Your task to perform on an android device: turn off notifications settings in the gmail app Image 0: 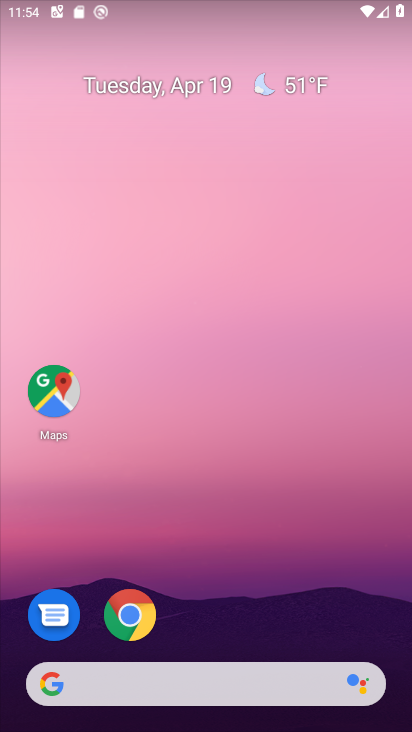
Step 0: drag from (223, 660) to (209, 229)
Your task to perform on an android device: turn off notifications settings in the gmail app Image 1: 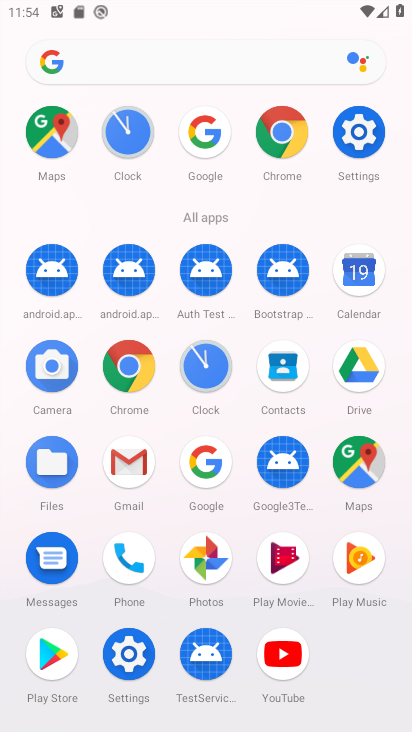
Step 1: click (127, 473)
Your task to perform on an android device: turn off notifications settings in the gmail app Image 2: 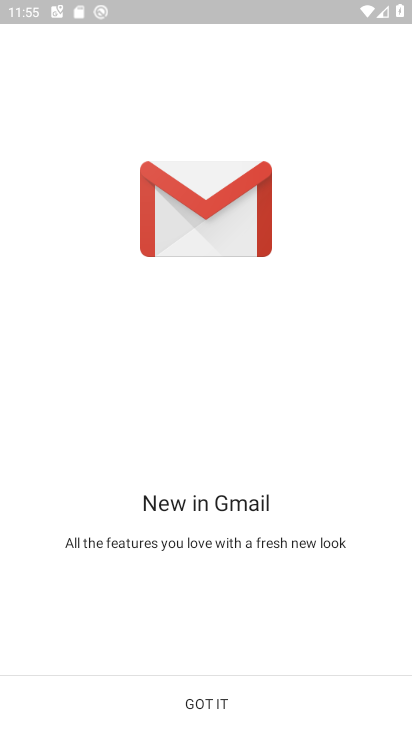
Step 2: click (175, 700)
Your task to perform on an android device: turn off notifications settings in the gmail app Image 3: 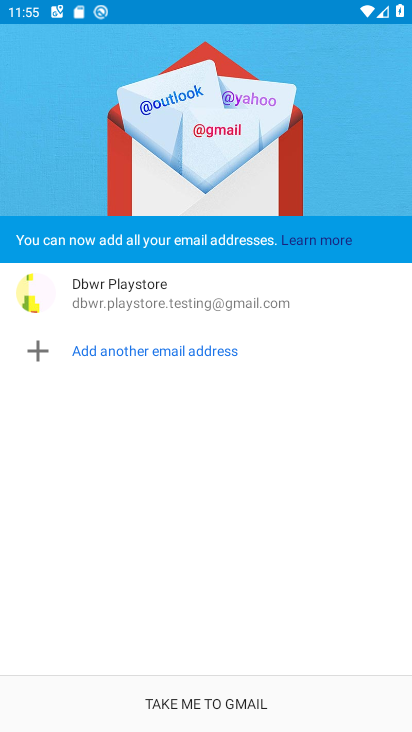
Step 3: click (180, 706)
Your task to perform on an android device: turn off notifications settings in the gmail app Image 4: 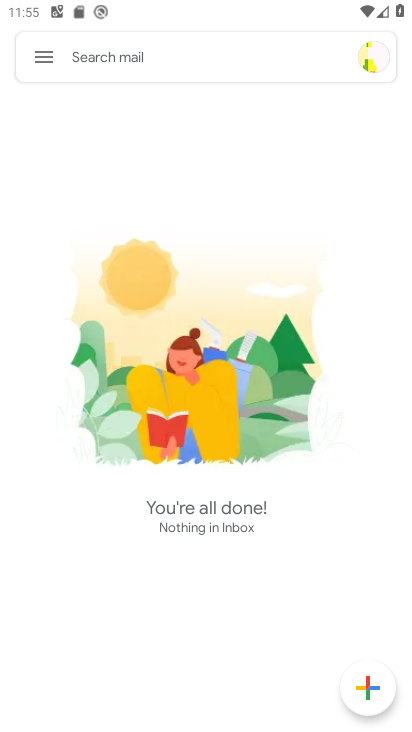
Step 4: click (43, 58)
Your task to perform on an android device: turn off notifications settings in the gmail app Image 5: 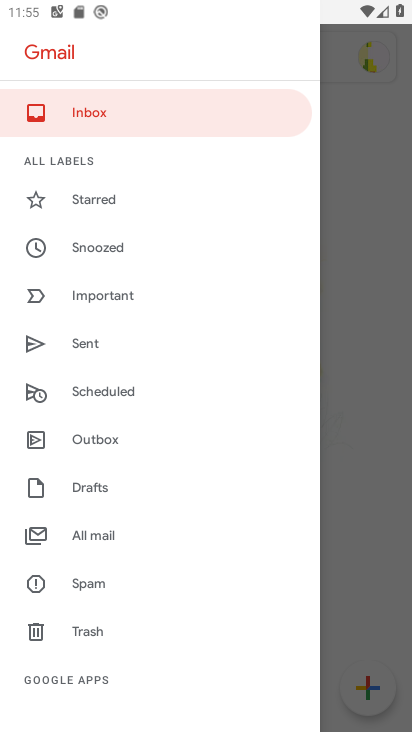
Step 5: drag from (142, 592) to (142, 235)
Your task to perform on an android device: turn off notifications settings in the gmail app Image 6: 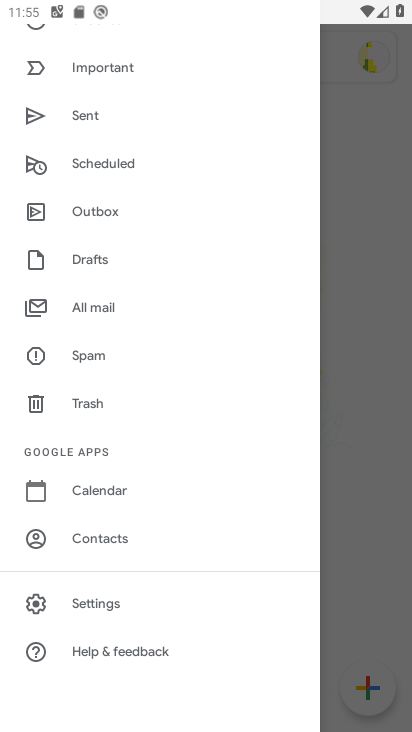
Step 6: click (104, 608)
Your task to perform on an android device: turn off notifications settings in the gmail app Image 7: 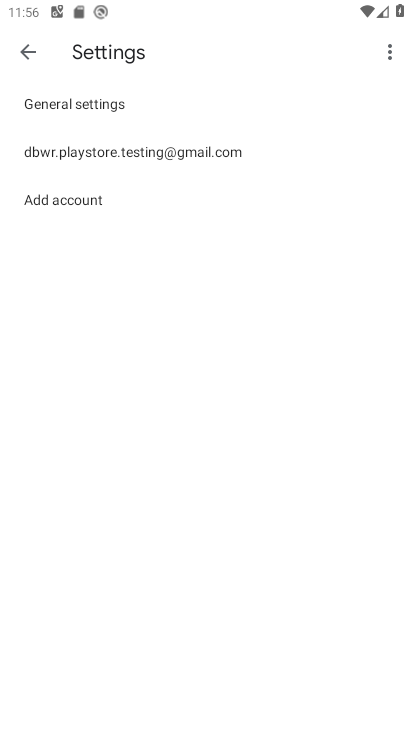
Step 7: click (158, 145)
Your task to perform on an android device: turn off notifications settings in the gmail app Image 8: 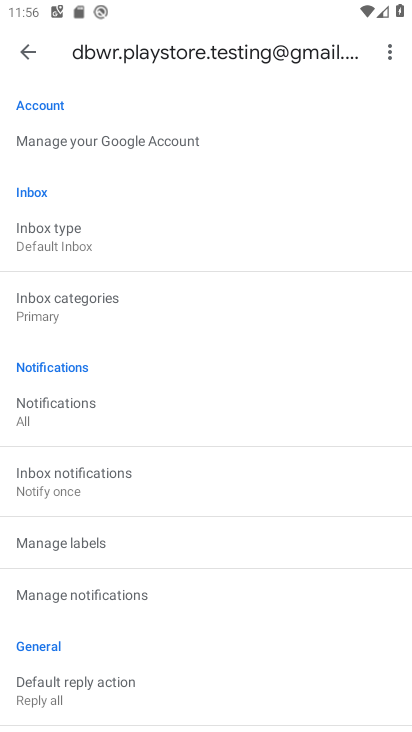
Step 8: drag from (120, 535) to (175, 151)
Your task to perform on an android device: turn off notifications settings in the gmail app Image 9: 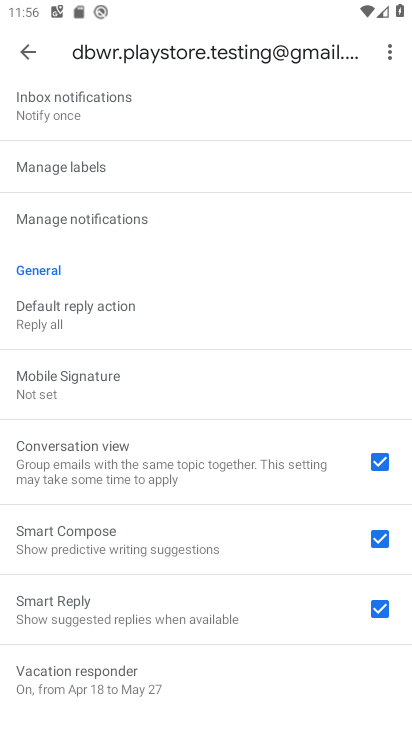
Step 9: drag from (161, 656) to (192, 275)
Your task to perform on an android device: turn off notifications settings in the gmail app Image 10: 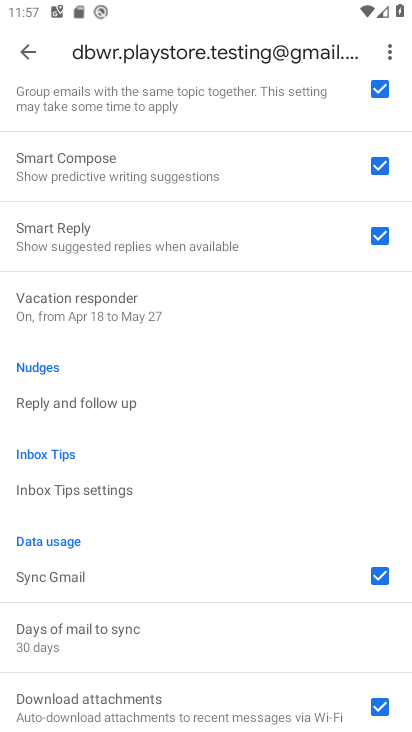
Step 10: drag from (224, 580) to (280, 109)
Your task to perform on an android device: turn off notifications settings in the gmail app Image 11: 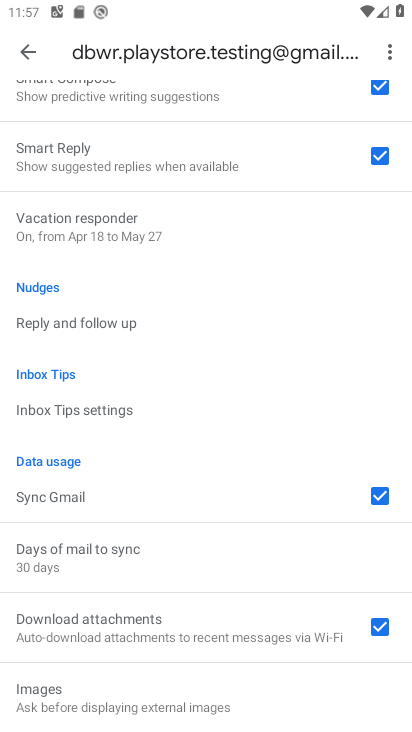
Step 11: drag from (176, 224) to (133, 590)
Your task to perform on an android device: turn off notifications settings in the gmail app Image 12: 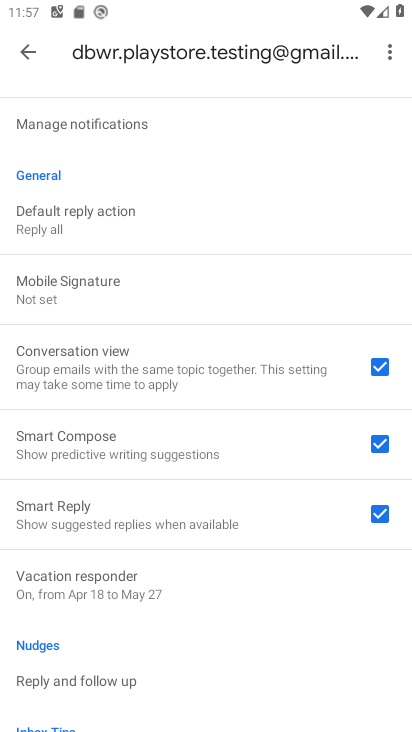
Step 12: click (93, 122)
Your task to perform on an android device: turn off notifications settings in the gmail app Image 13: 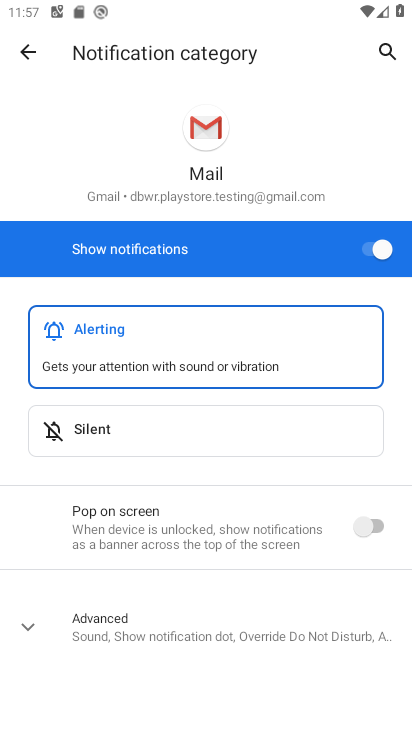
Step 13: click (383, 252)
Your task to perform on an android device: turn off notifications settings in the gmail app Image 14: 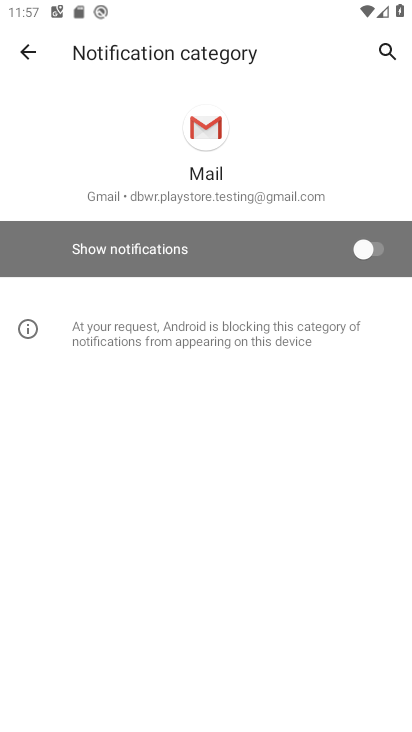
Step 14: task complete